Your task to perform on an android device: check the backup settings in the google photos Image 0: 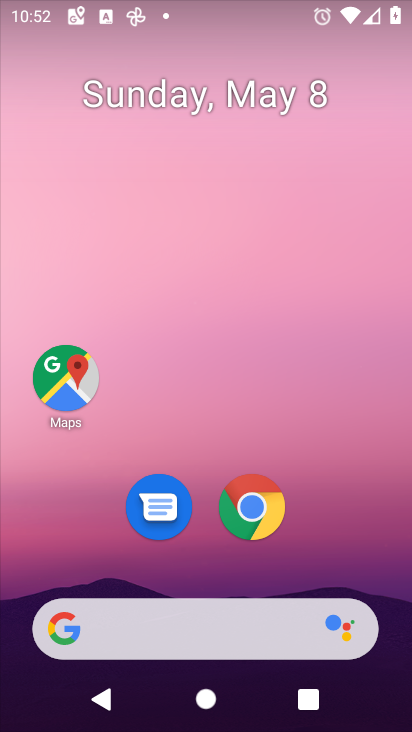
Step 0: drag from (244, 685) to (166, 121)
Your task to perform on an android device: check the backup settings in the google photos Image 1: 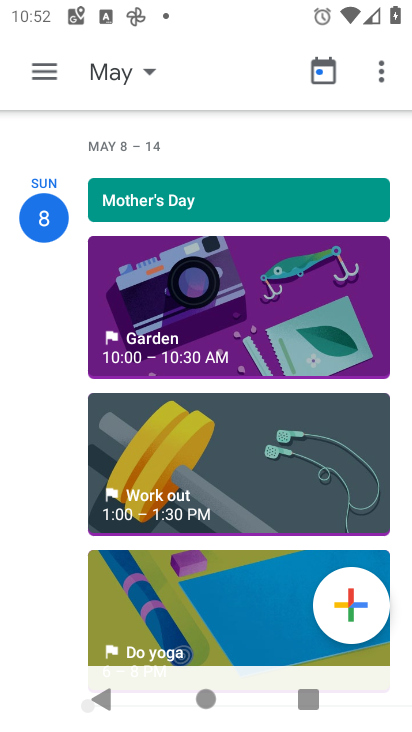
Step 1: press home button
Your task to perform on an android device: check the backup settings in the google photos Image 2: 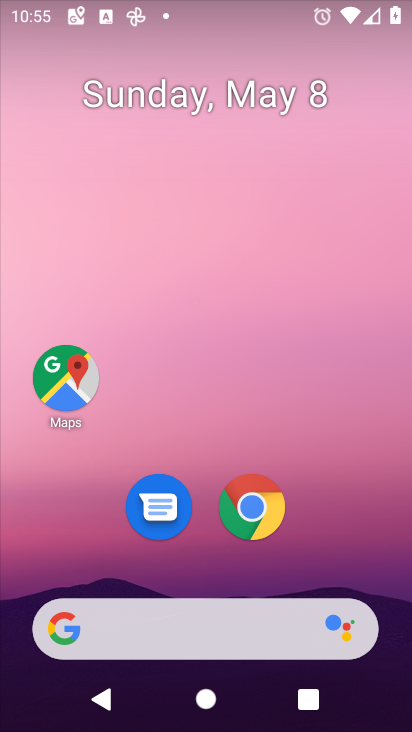
Step 2: drag from (260, 711) to (192, 156)
Your task to perform on an android device: check the backup settings in the google photos Image 3: 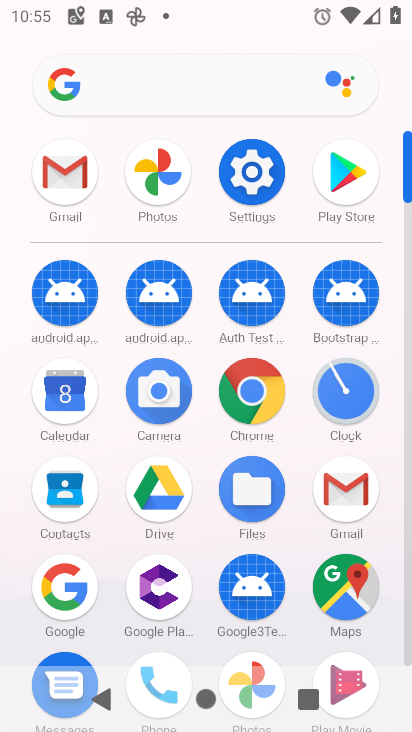
Step 3: click (242, 653)
Your task to perform on an android device: check the backup settings in the google photos Image 4: 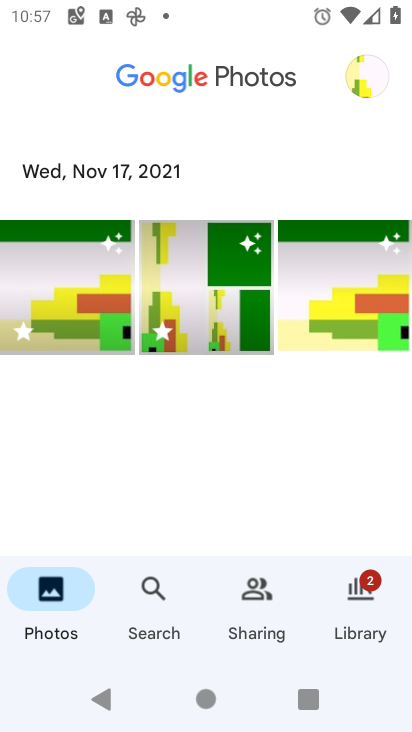
Step 4: click (358, 79)
Your task to perform on an android device: check the backup settings in the google photos Image 5: 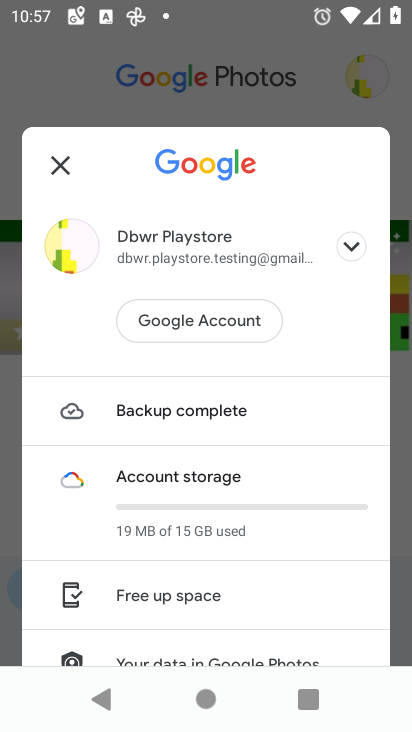
Step 5: drag from (289, 641) to (180, 249)
Your task to perform on an android device: check the backup settings in the google photos Image 6: 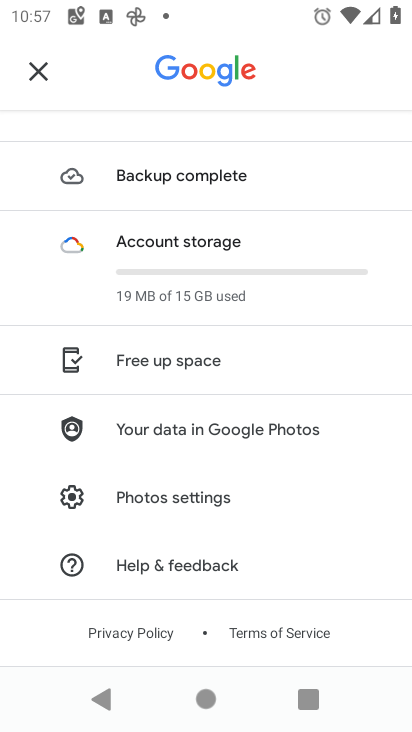
Step 6: click (225, 492)
Your task to perform on an android device: check the backup settings in the google photos Image 7: 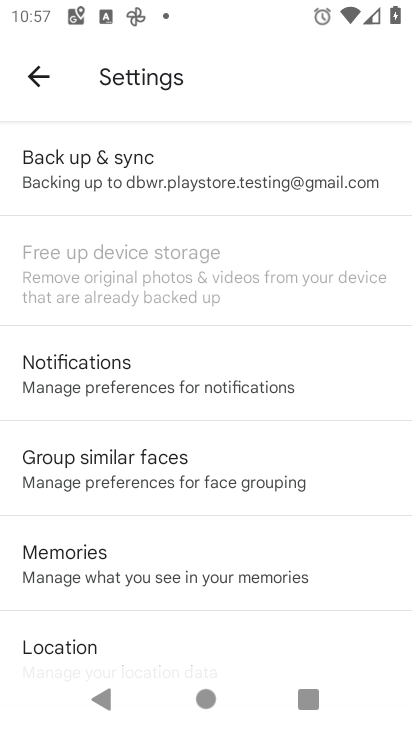
Step 7: click (249, 168)
Your task to perform on an android device: check the backup settings in the google photos Image 8: 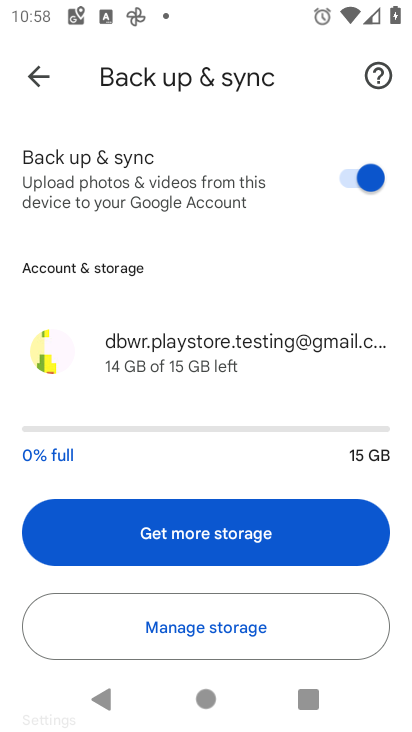
Step 8: click (208, 188)
Your task to perform on an android device: check the backup settings in the google photos Image 9: 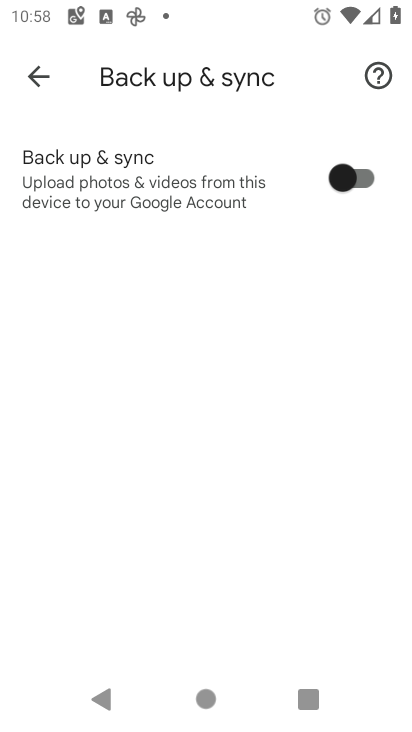
Step 9: task complete